Your task to perform on an android device: Open maps Image 0: 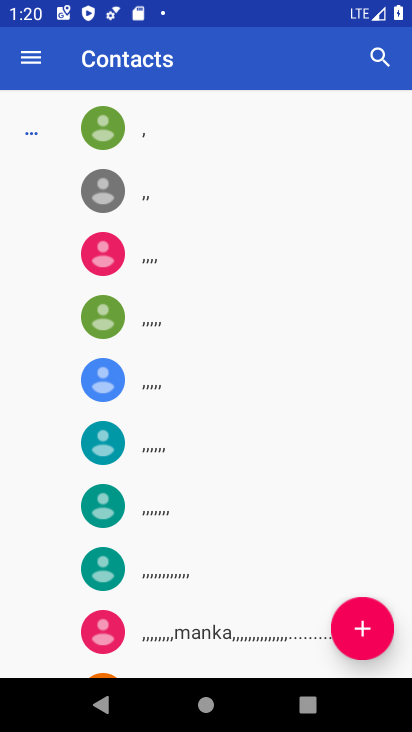
Step 0: press home button
Your task to perform on an android device: Open maps Image 1: 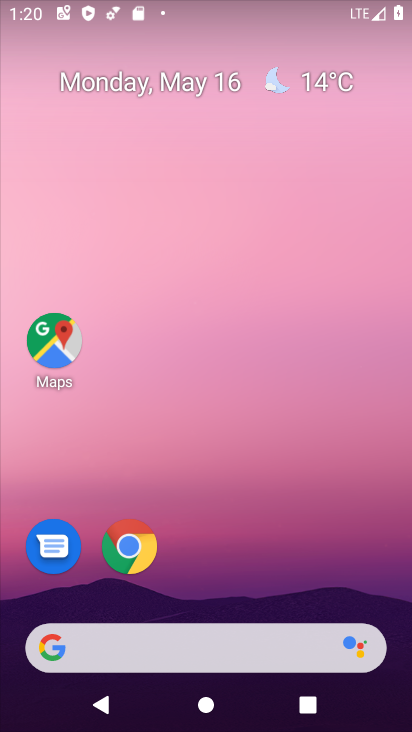
Step 1: drag from (277, 667) to (411, 139)
Your task to perform on an android device: Open maps Image 2: 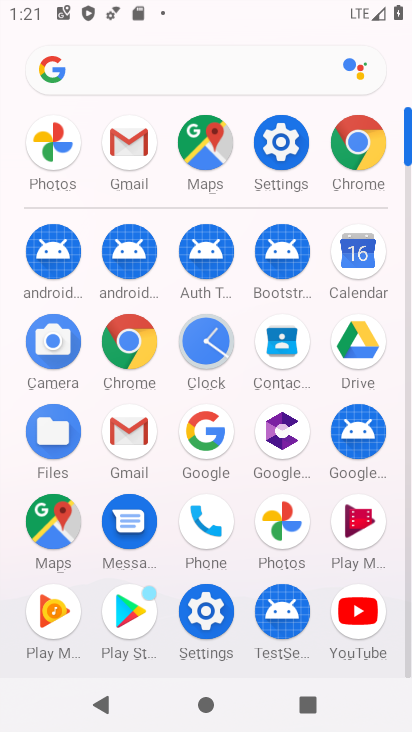
Step 2: click (47, 523)
Your task to perform on an android device: Open maps Image 3: 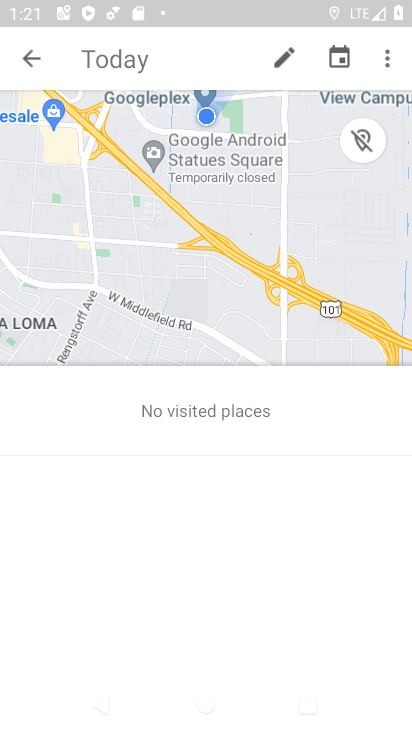
Step 3: click (16, 66)
Your task to perform on an android device: Open maps Image 4: 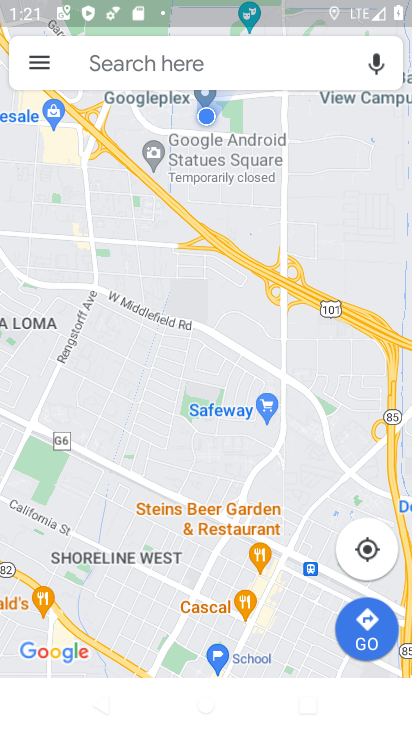
Step 4: task complete